Your task to perform on an android device: Toggle the flashlight Image 0: 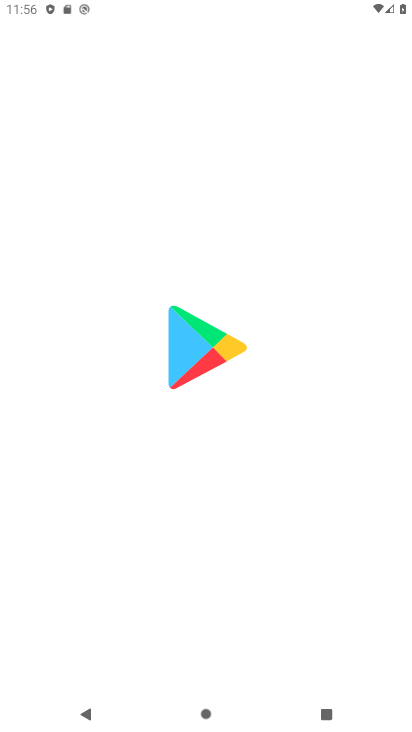
Step 0: drag from (201, 655) to (214, 582)
Your task to perform on an android device: Toggle the flashlight Image 1: 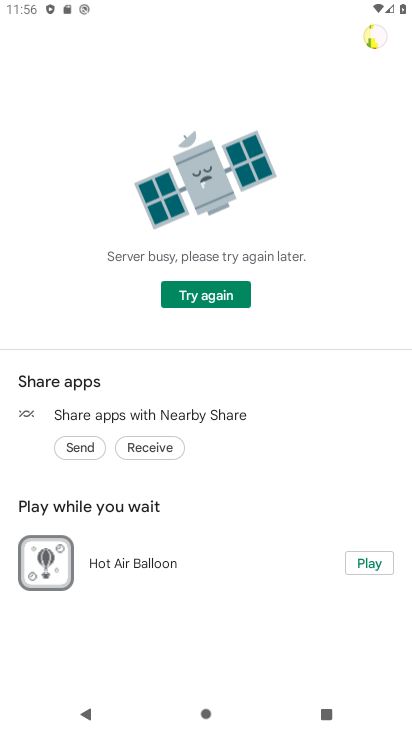
Step 1: task complete